Your task to perform on an android device: Open Android settings Image 0: 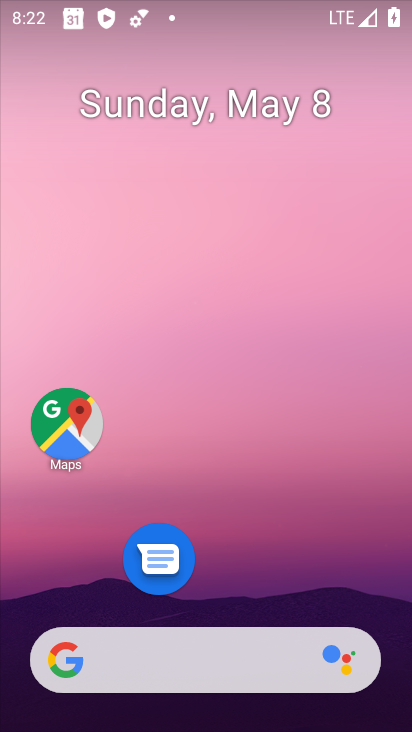
Step 0: drag from (310, 257) to (273, 28)
Your task to perform on an android device: Open Android settings Image 1: 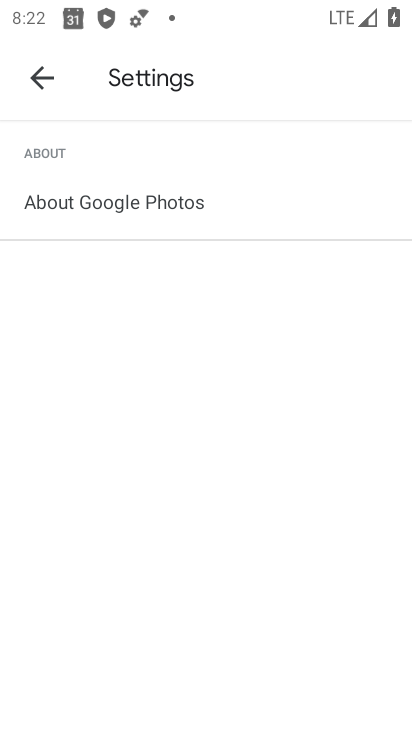
Step 1: press home button
Your task to perform on an android device: Open Android settings Image 2: 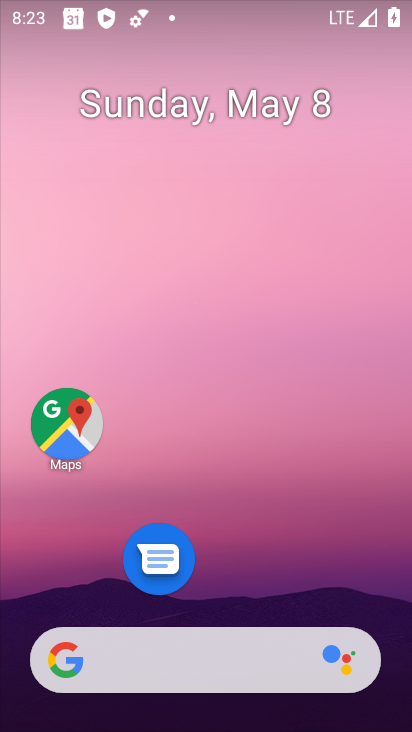
Step 2: drag from (240, 706) to (284, 44)
Your task to perform on an android device: Open Android settings Image 3: 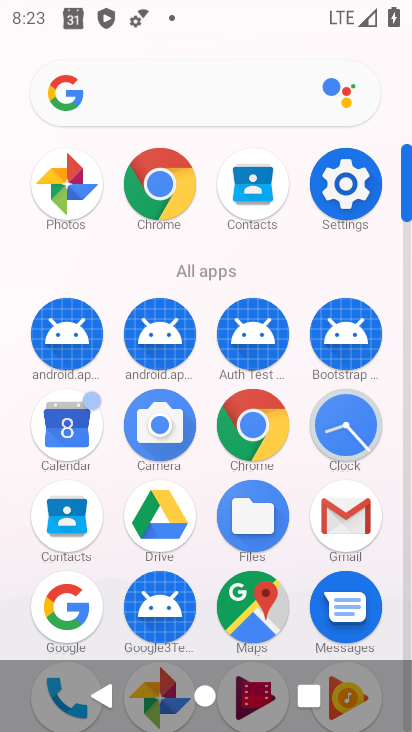
Step 3: drag from (294, 641) to (255, 174)
Your task to perform on an android device: Open Android settings Image 4: 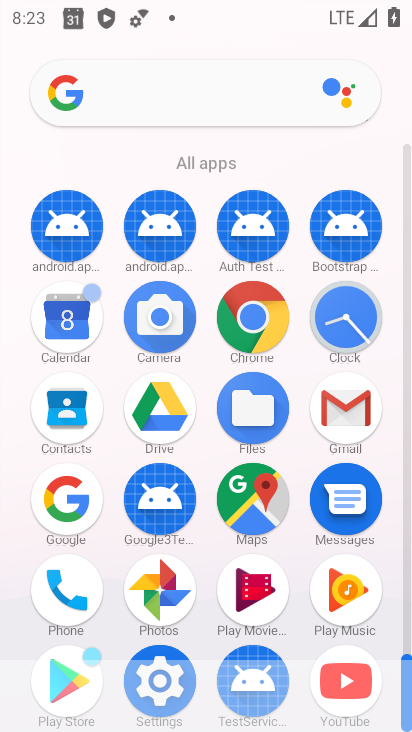
Step 4: click (159, 674)
Your task to perform on an android device: Open Android settings Image 5: 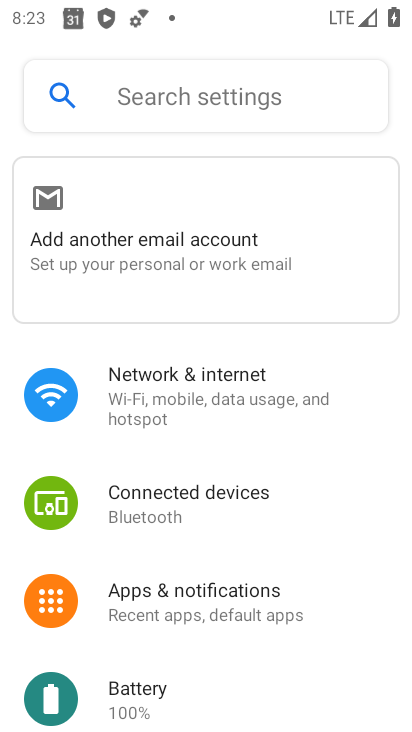
Step 5: drag from (294, 705) to (302, 163)
Your task to perform on an android device: Open Android settings Image 6: 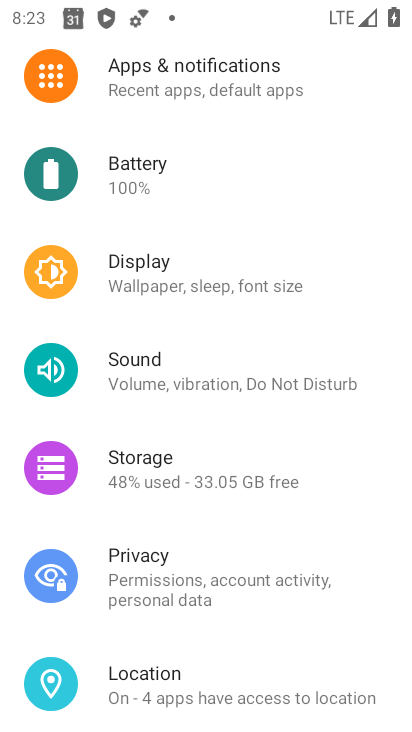
Step 6: drag from (263, 711) to (277, 124)
Your task to perform on an android device: Open Android settings Image 7: 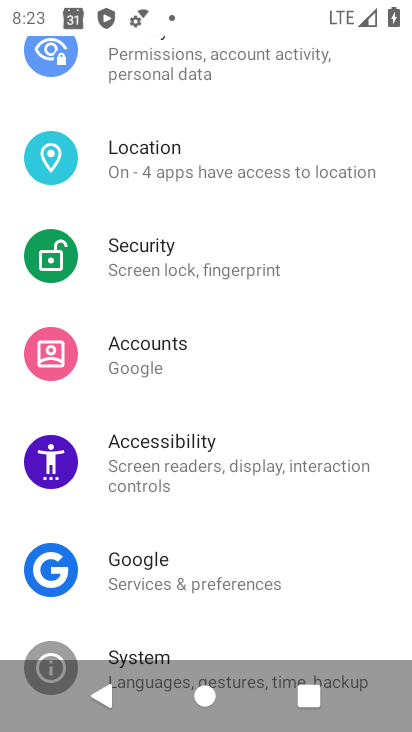
Step 7: drag from (275, 656) to (267, 275)
Your task to perform on an android device: Open Android settings Image 8: 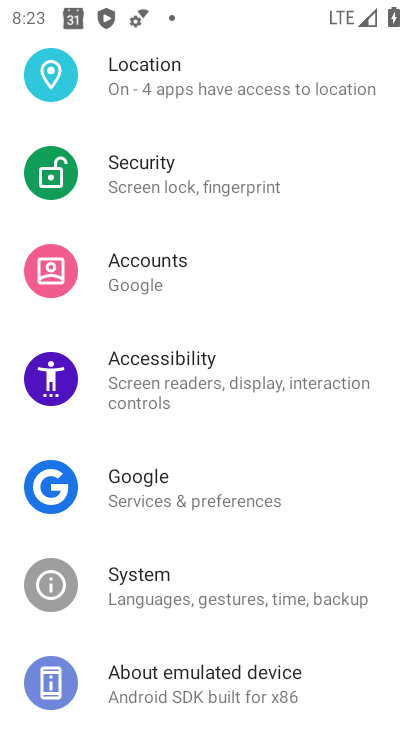
Step 8: click (229, 713)
Your task to perform on an android device: Open Android settings Image 9: 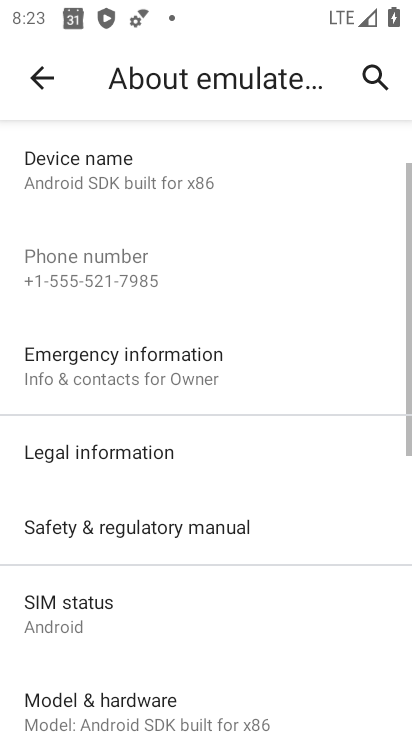
Step 9: drag from (213, 703) to (180, 97)
Your task to perform on an android device: Open Android settings Image 10: 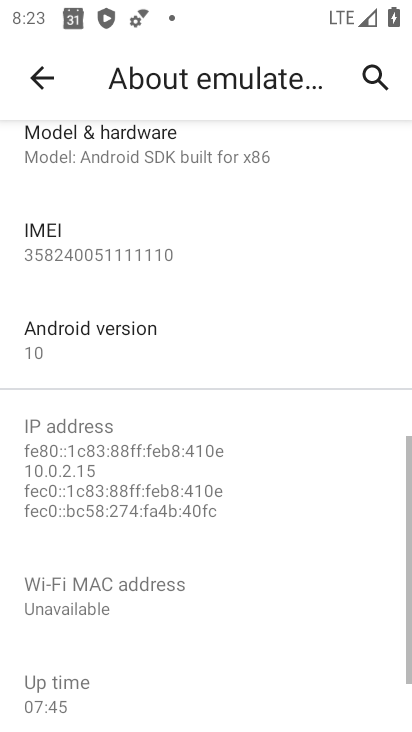
Step 10: click (168, 353)
Your task to perform on an android device: Open Android settings Image 11: 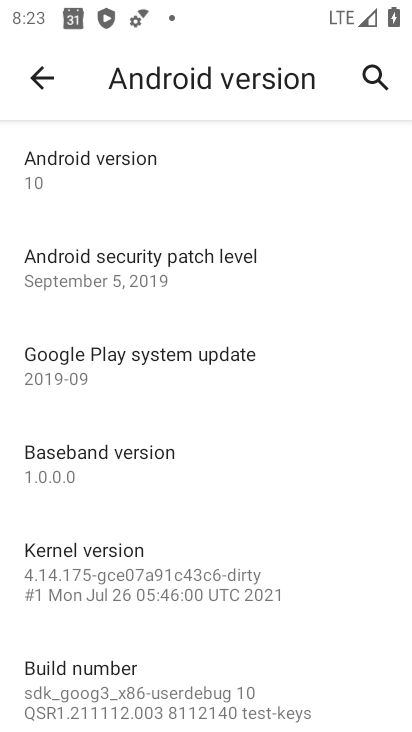
Step 11: task complete